Your task to perform on an android device: Search for seafood restaurants on Google Maps Image 0: 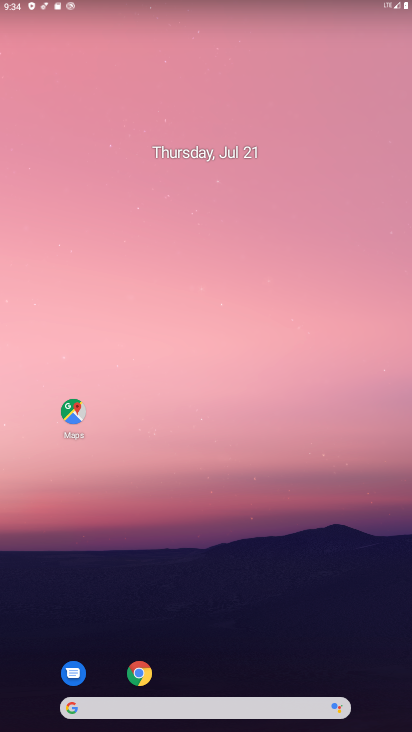
Step 0: click (72, 423)
Your task to perform on an android device: Search for seafood restaurants on Google Maps Image 1: 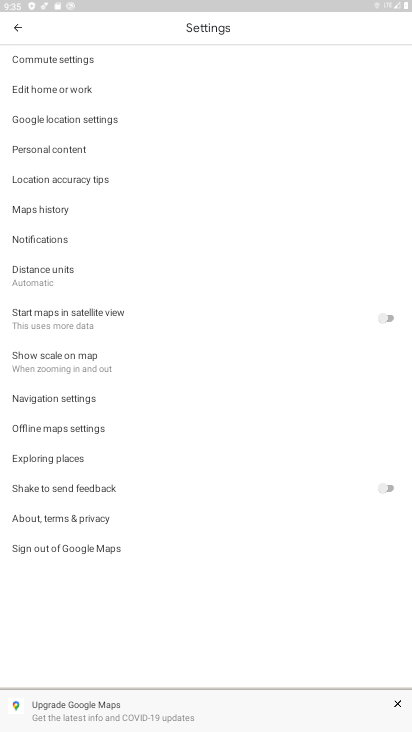
Step 1: click (21, 26)
Your task to perform on an android device: Search for seafood restaurants on Google Maps Image 2: 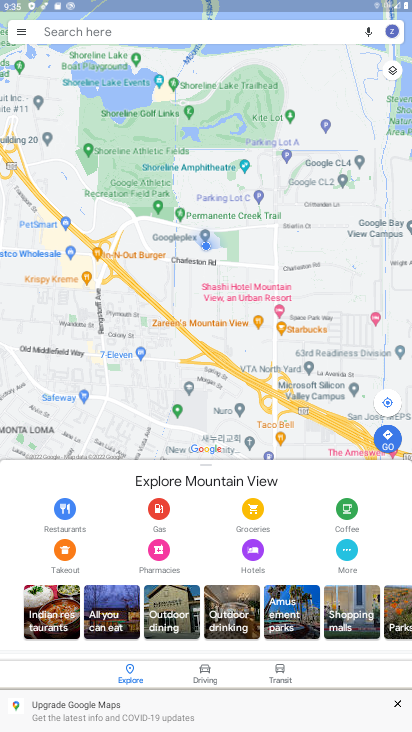
Step 2: click (80, 30)
Your task to perform on an android device: Search for seafood restaurants on Google Maps Image 3: 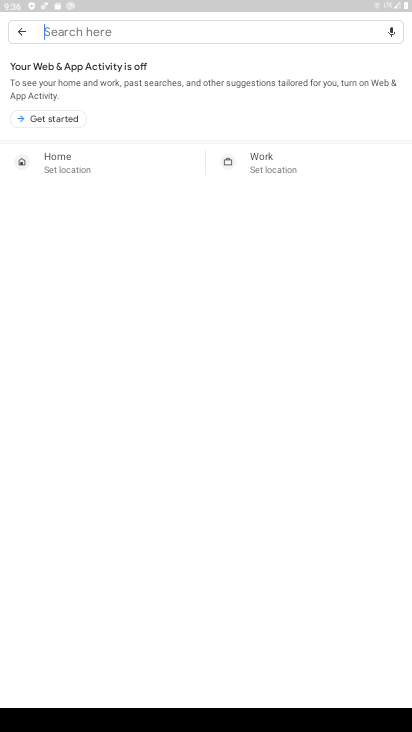
Step 3: type "seafood restaurants"
Your task to perform on an android device: Search for seafood restaurants on Google Maps Image 4: 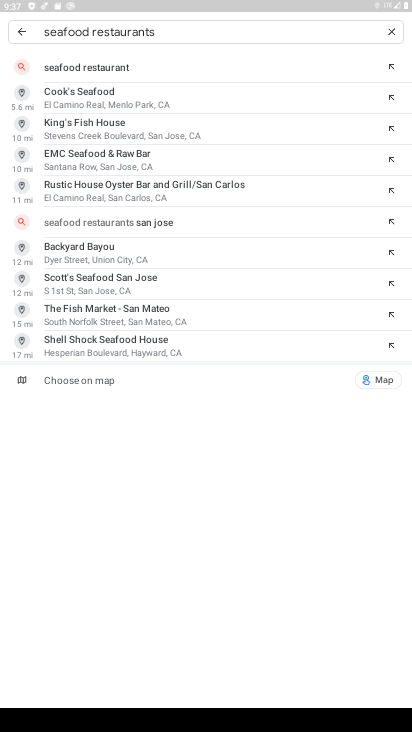
Step 4: click (149, 70)
Your task to perform on an android device: Search for seafood restaurants on Google Maps Image 5: 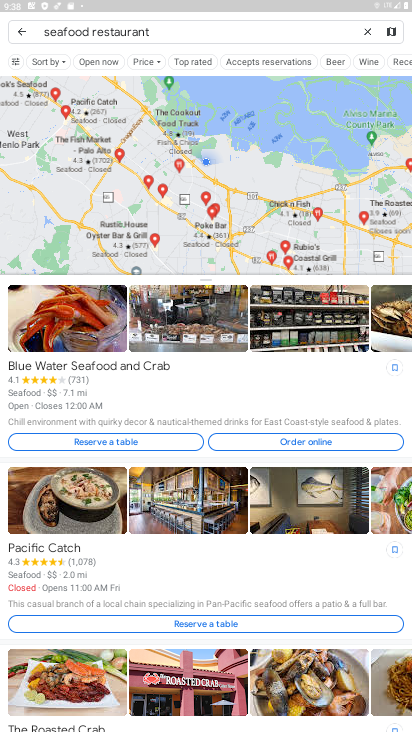
Step 5: task complete